Your task to perform on an android device: Go to privacy settings Image 0: 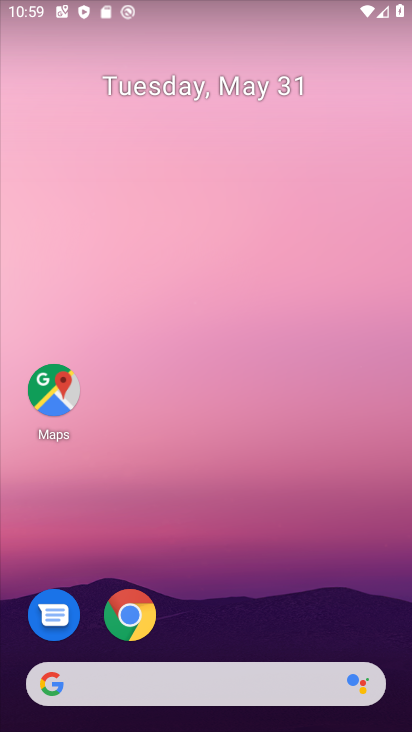
Step 0: task complete